Your task to perform on an android device: Open CNN.com Image 0: 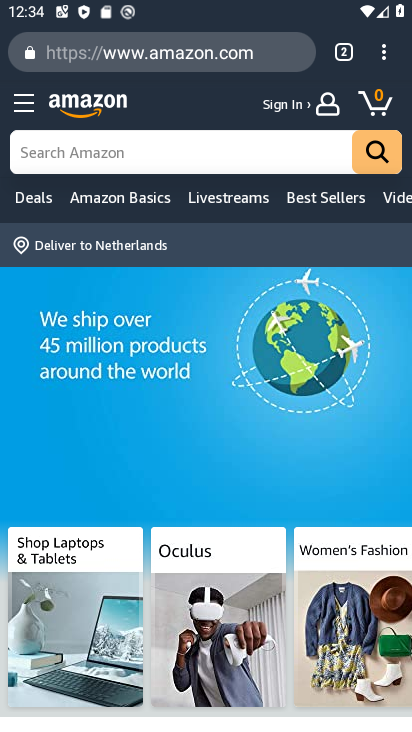
Step 0: press home button
Your task to perform on an android device: Open CNN.com Image 1: 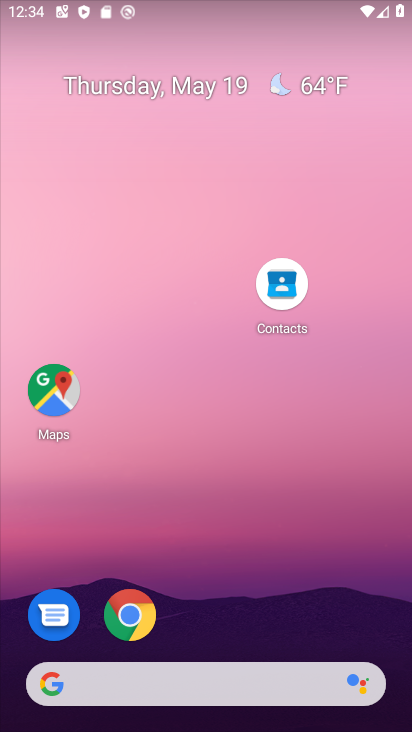
Step 1: click (133, 608)
Your task to perform on an android device: Open CNN.com Image 2: 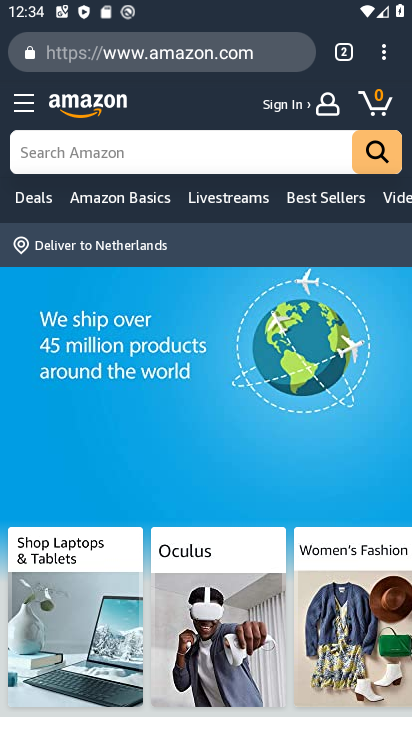
Step 2: click (257, 50)
Your task to perform on an android device: Open CNN.com Image 3: 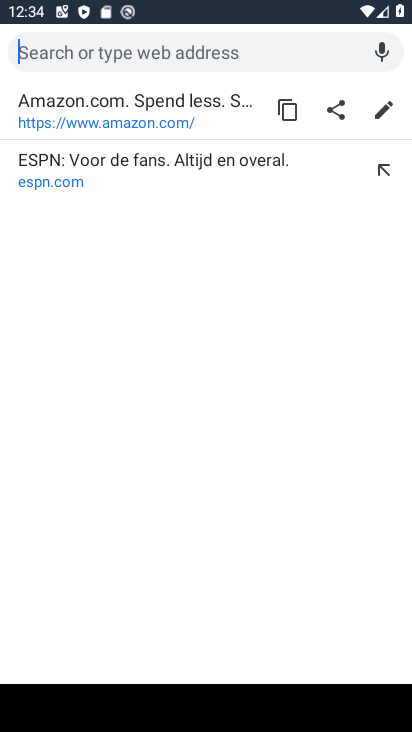
Step 3: type "cnn"
Your task to perform on an android device: Open CNN.com Image 4: 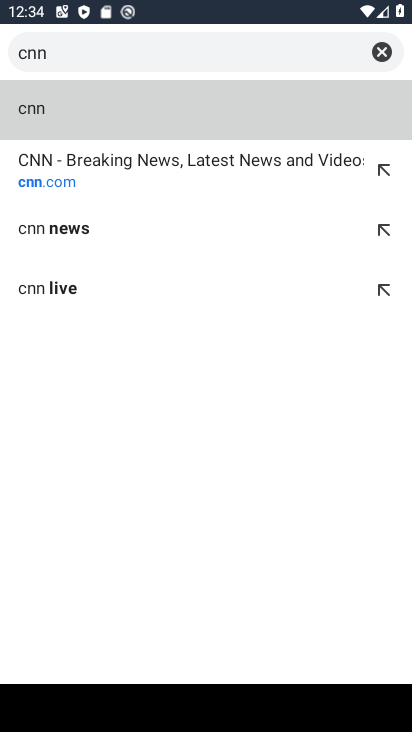
Step 4: click (306, 181)
Your task to perform on an android device: Open CNN.com Image 5: 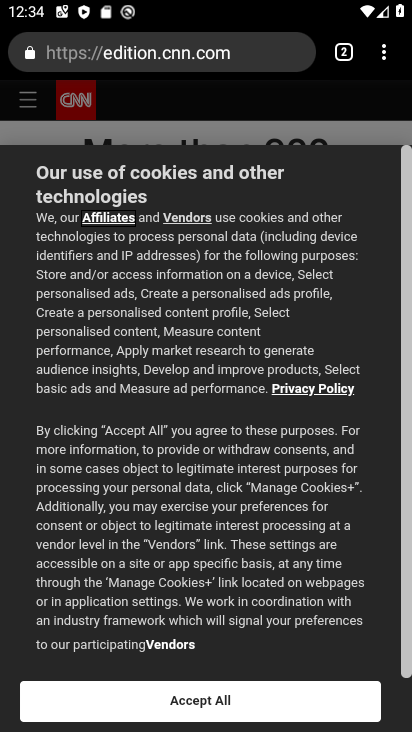
Step 5: task complete